Your task to perform on an android device: star an email in the gmail app Image 0: 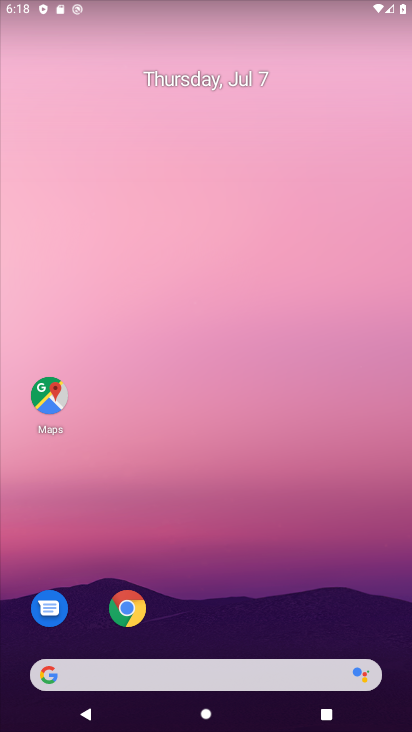
Step 0: drag from (200, 588) to (292, 101)
Your task to perform on an android device: star an email in the gmail app Image 1: 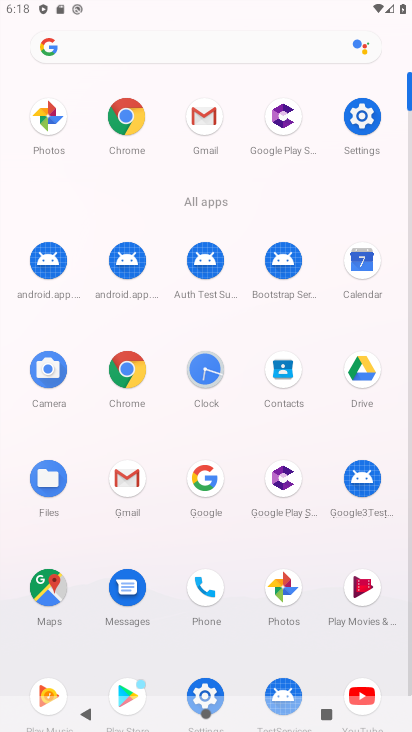
Step 1: click (179, 97)
Your task to perform on an android device: star an email in the gmail app Image 2: 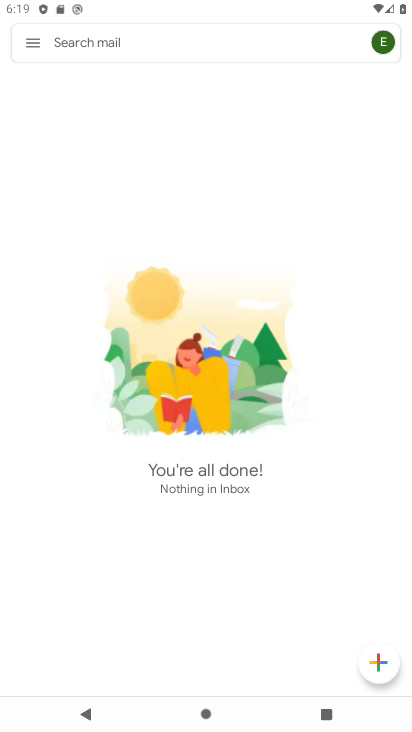
Step 2: click (31, 47)
Your task to perform on an android device: star an email in the gmail app Image 3: 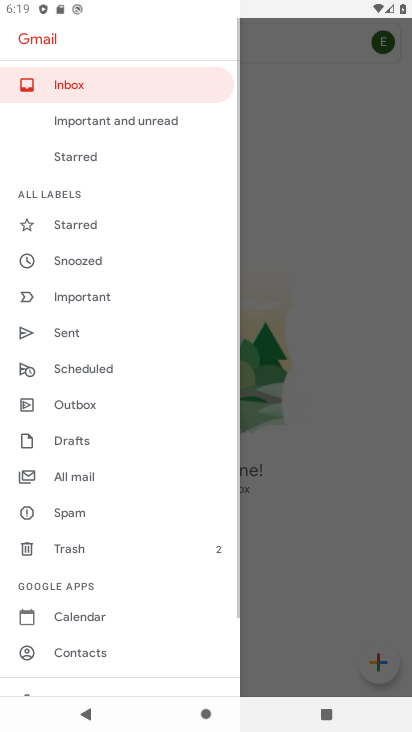
Step 3: click (70, 478)
Your task to perform on an android device: star an email in the gmail app Image 4: 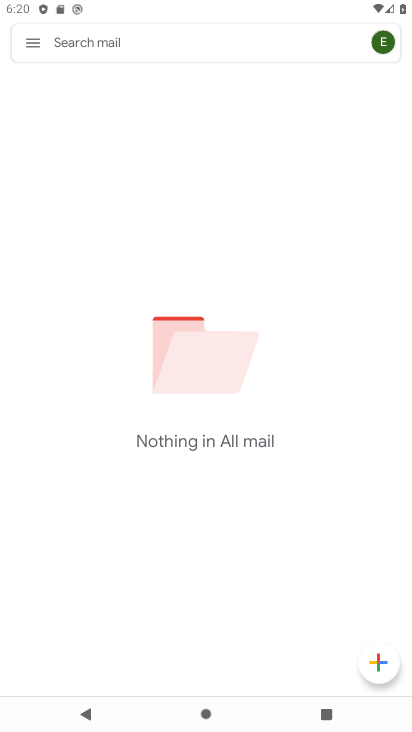
Step 4: task complete